Your task to perform on an android device: turn notification dots on Image 0: 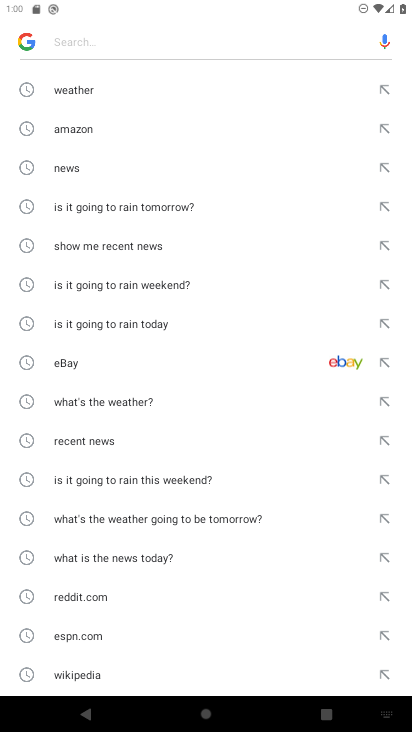
Step 0: press home button
Your task to perform on an android device: turn notification dots on Image 1: 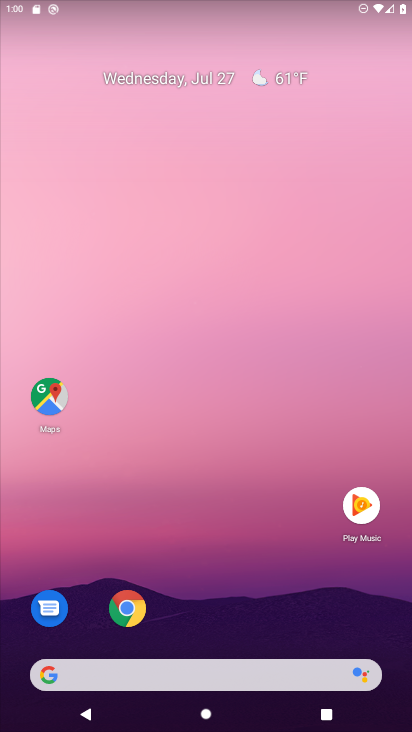
Step 1: drag from (281, 610) to (293, 90)
Your task to perform on an android device: turn notification dots on Image 2: 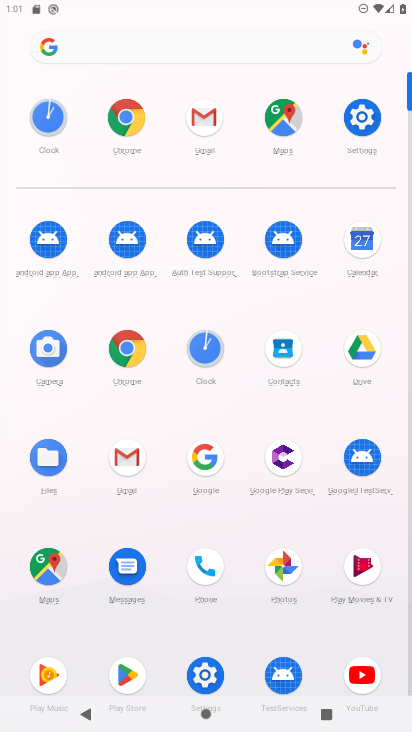
Step 2: click (361, 122)
Your task to perform on an android device: turn notification dots on Image 3: 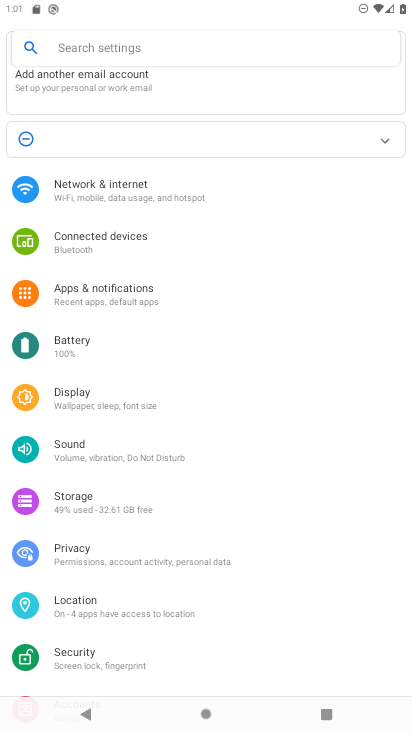
Step 3: drag from (316, 384) to (320, 348)
Your task to perform on an android device: turn notification dots on Image 4: 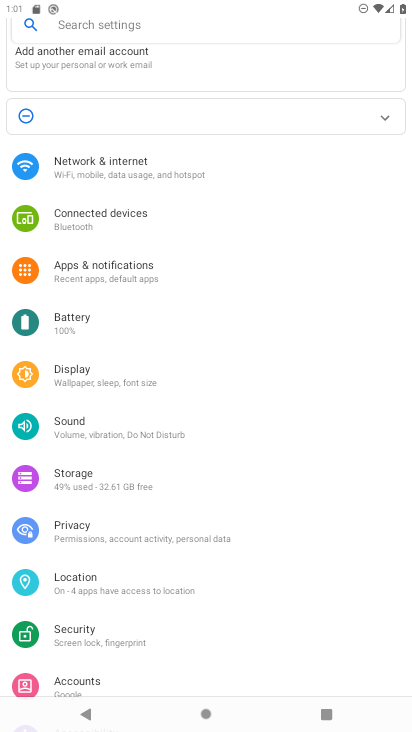
Step 4: drag from (300, 419) to (303, 374)
Your task to perform on an android device: turn notification dots on Image 5: 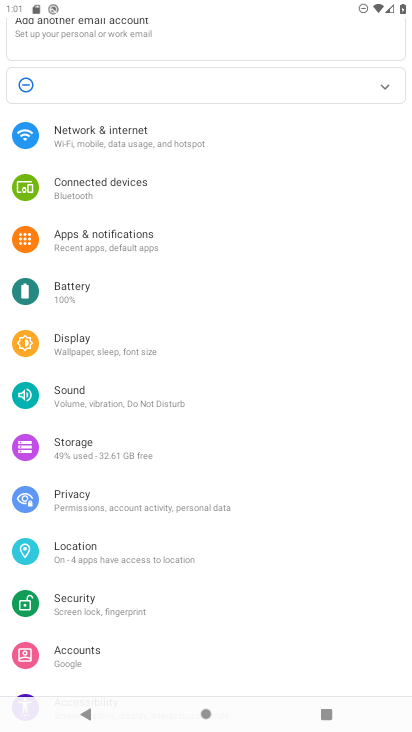
Step 5: drag from (300, 443) to (303, 393)
Your task to perform on an android device: turn notification dots on Image 6: 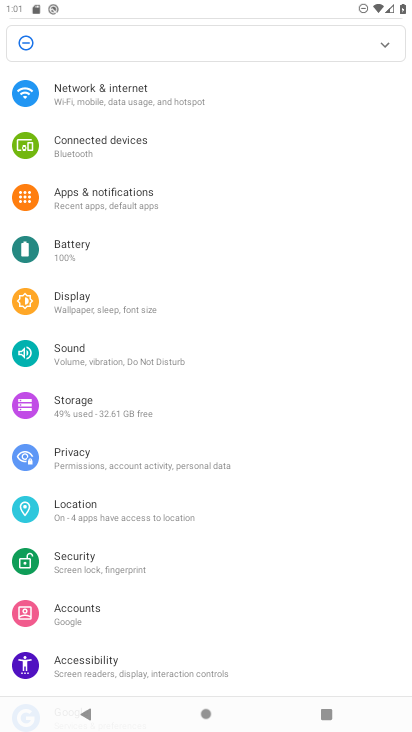
Step 6: drag from (299, 460) to (305, 422)
Your task to perform on an android device: turn notification dots on Image 7: 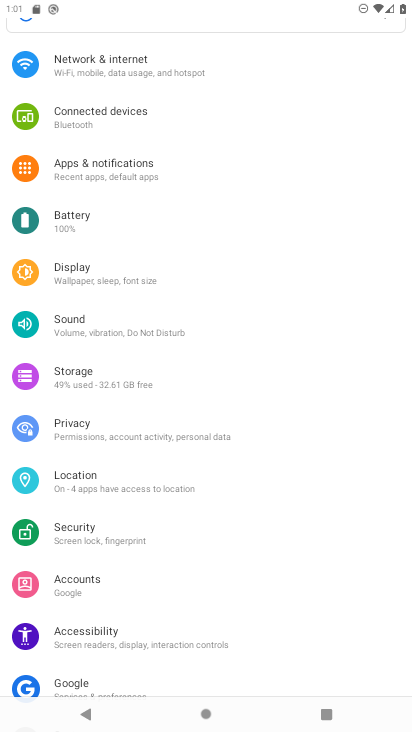
Step 7: drag from (309, 508) to (312, 444)
Your task to perform on an android device: turn notification dots on Image 8: 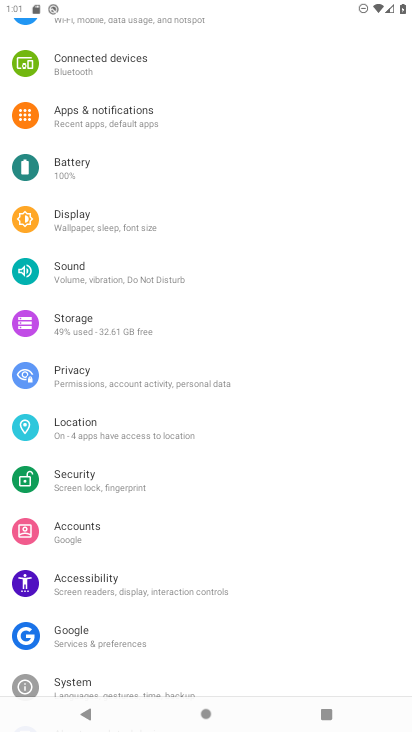
Step 8: drag from (300, 524) to (302, 442)
Your task to perform on an android device: turn notification dots on Image 9: 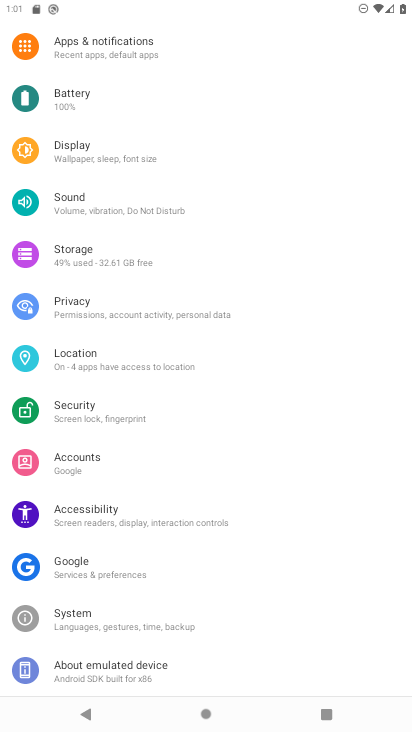
Step 9: drag from (300, 515) to (298, 439)
Your task to perform on an android device: turn notification dots on Image 10: 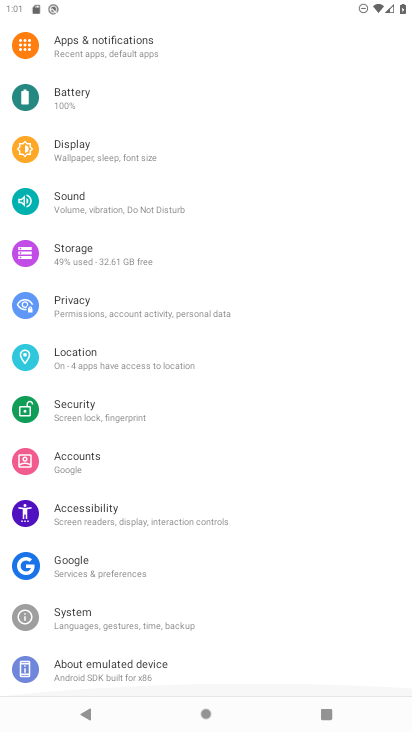
Step 10: drag from (298, 386) to (298, 431)
Your task to perform on an android device: turn notification dots on Image 11: 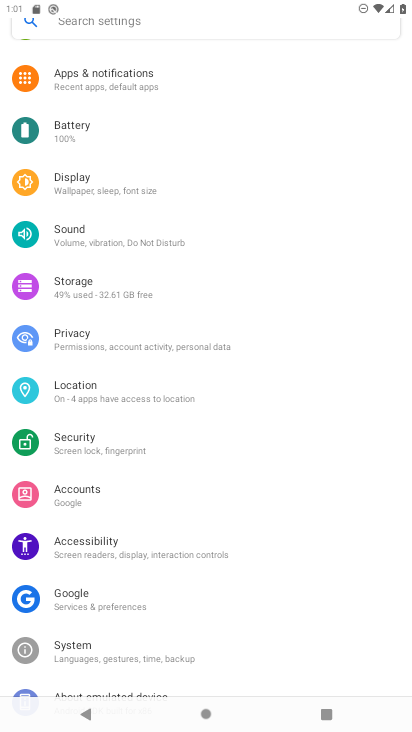
Step 11: drag from (302, 332) to (302, 387)
Your task to perform on an android device: turn notification dots on Image 12: 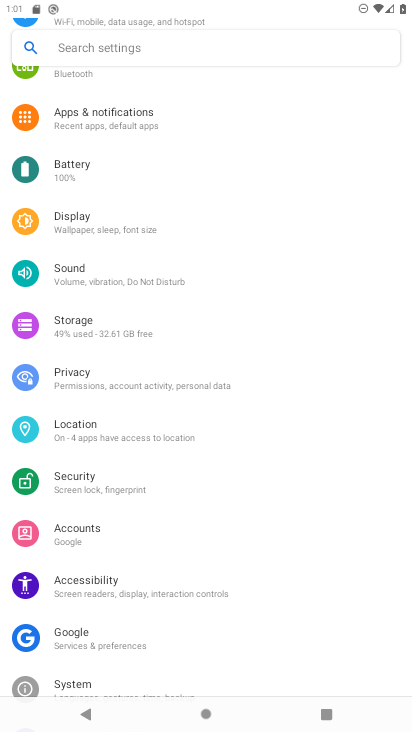
Step 12: drag from (301, 287) to (302, 340)
Your task to perform on an android device: turn notification dots on Image 13: 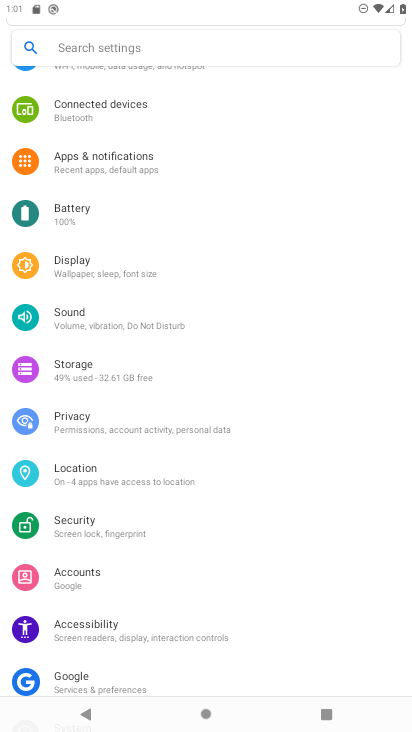
Step 13: drag from (306, 290) to (310, 423)
Your task to perform on an android device: turn notification dots on Image 14: 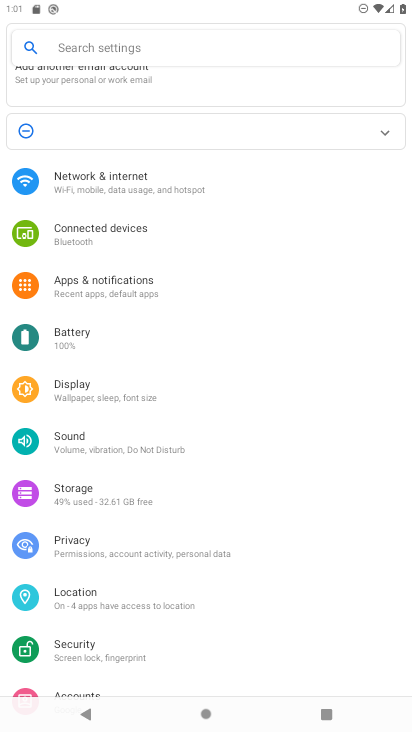
Step 14: drag from (281, 291) to (292, 427)
Your task to perform on an android device: turn notification dots on Image 15: 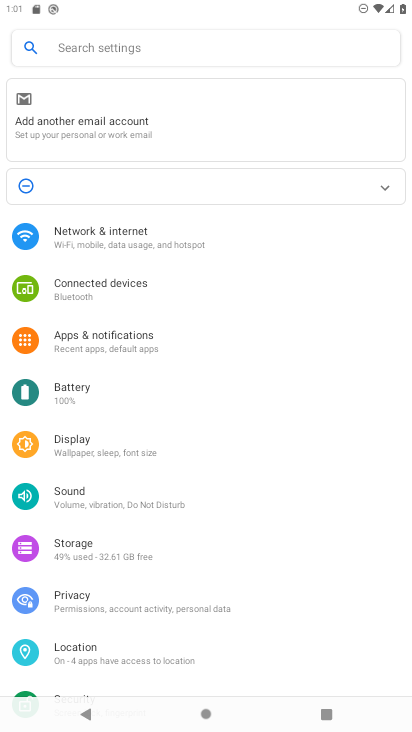
Step 15: click (167, 338)
Your task to perform on an android device: turn notification dots on Image 16: 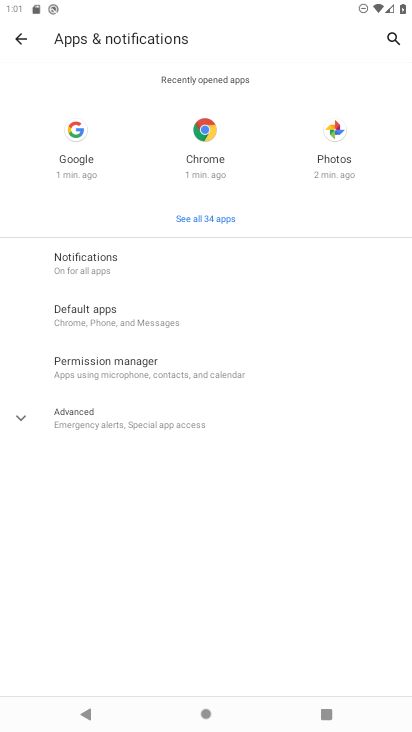
Step 16: click (150, 270)
Your task to perform on an android device: turn notification dots on Image 17: 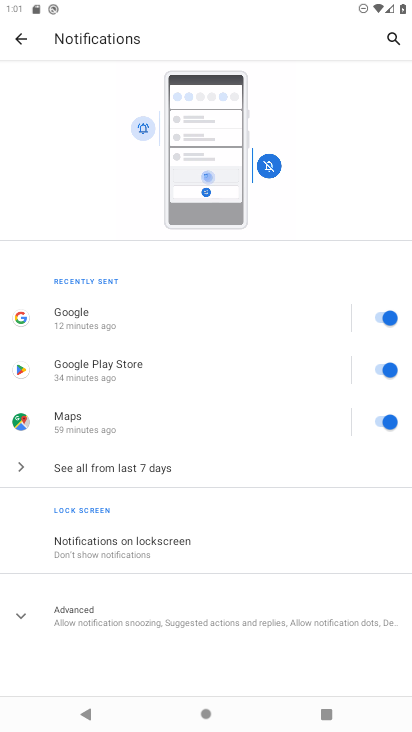
Step 17: drag from (259, 455) to (260, 383)
Your task to perform on an android device: turn notification dots on Image 18: 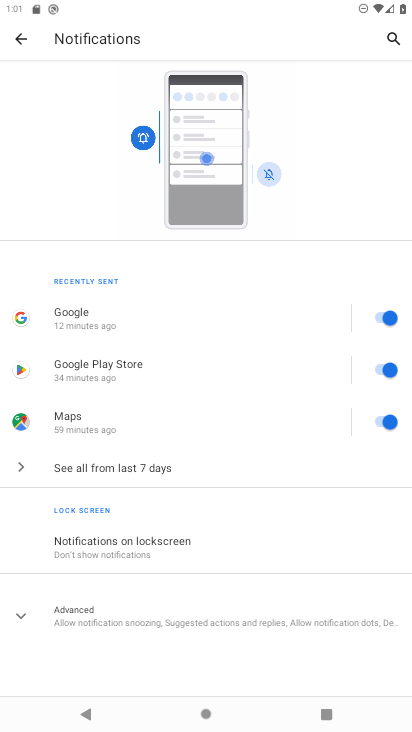
Step 18: click (270, 600)
Your task to perform on an android device: turn notification dots on Image 19: 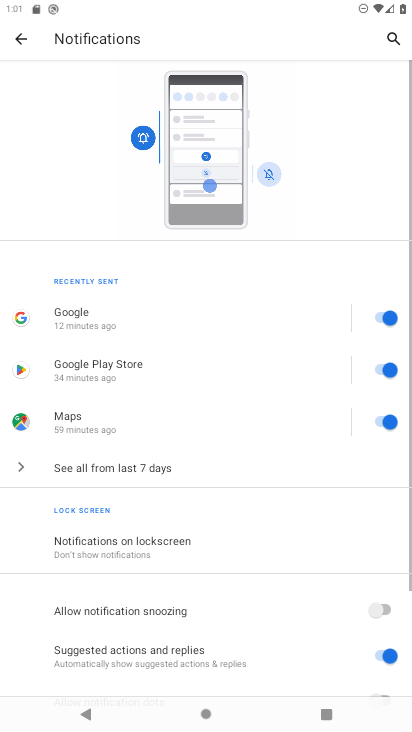
Step 19: drag from (270, 600) to (269, 534)
Your task to perform on an android device: turn notification dots on Image 20: 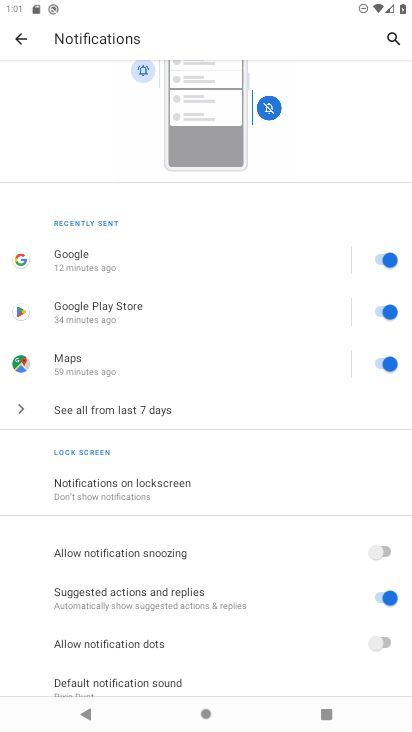
Step 20: drag from (268, 601) to (276, 524)
Your task to perform on an android device: turn notification dots on Image 21: 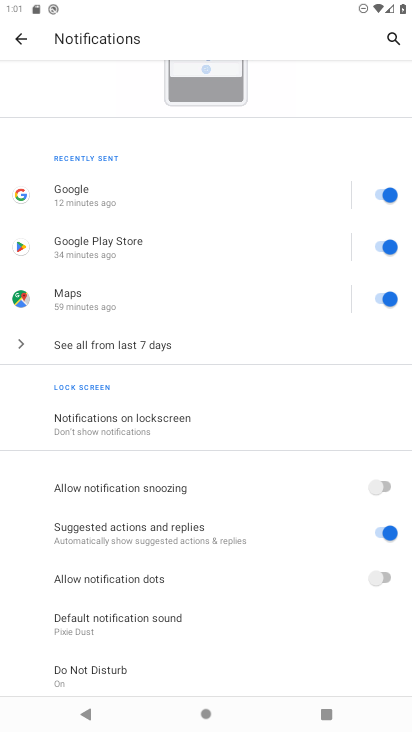
Step 21: drag from (280, 600) to (281, 504)
Your task to perform on an android device: turn notification dots on Image 22: 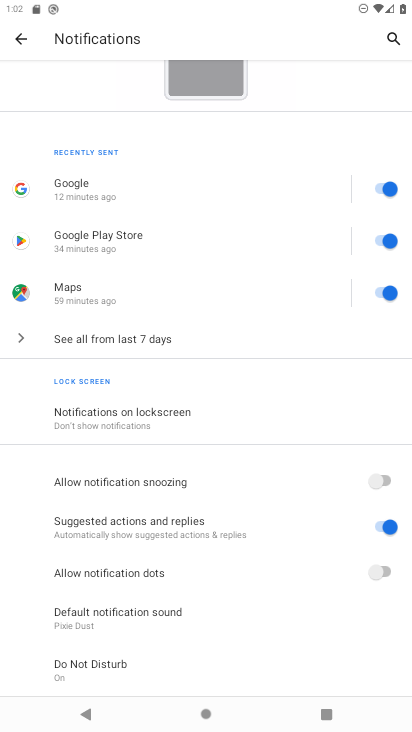
Step 22: click (367, 572)
Your task to perform on an android device: turn notification dots on Image 23: 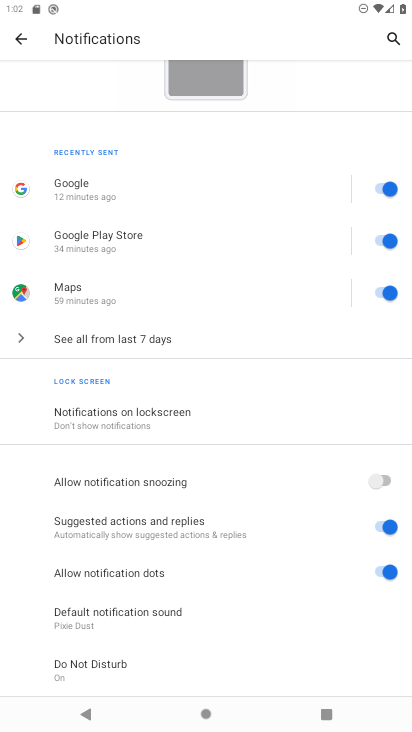
Step 23: task complete